Your task to perform on an android device: see sites visited before in the chrome app Image 0: 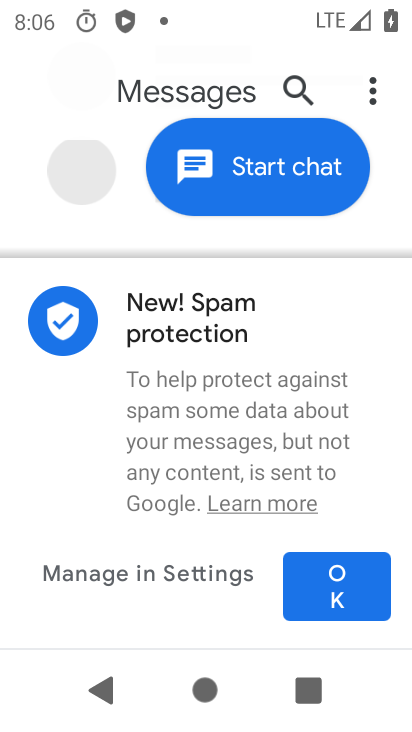
Step 0: press home button
Your task to perform on an android device: see sites visited before in the chrome app Image 1: 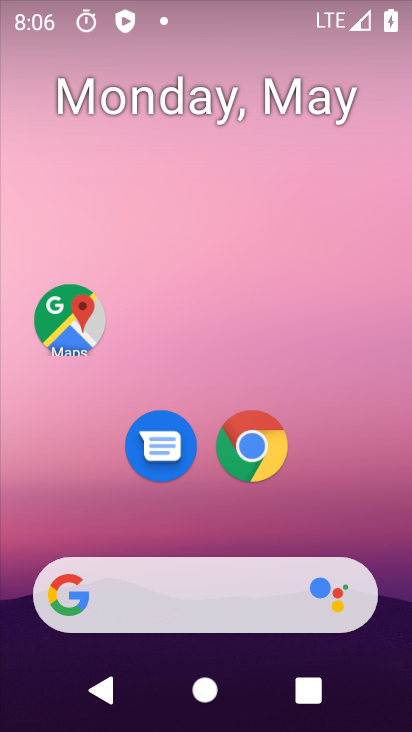
Step 1: click (259, 456)
Your task to perform on an android device: see sites visited before in the chrome app Image 2: 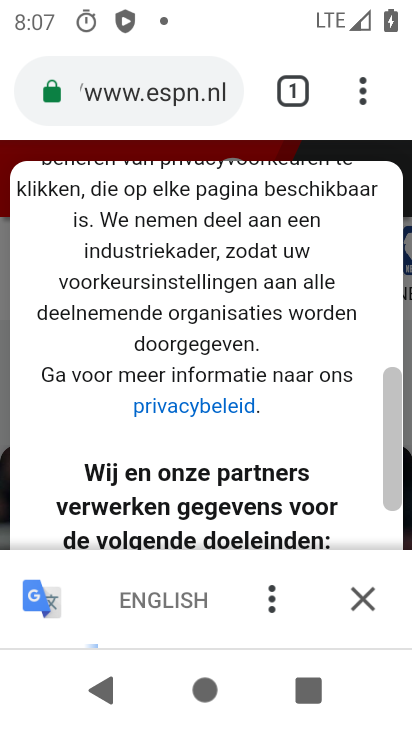
Step 2: click (364, 93)
Your task to perform on an android device: see sites visited before in the chrome app Image 3: 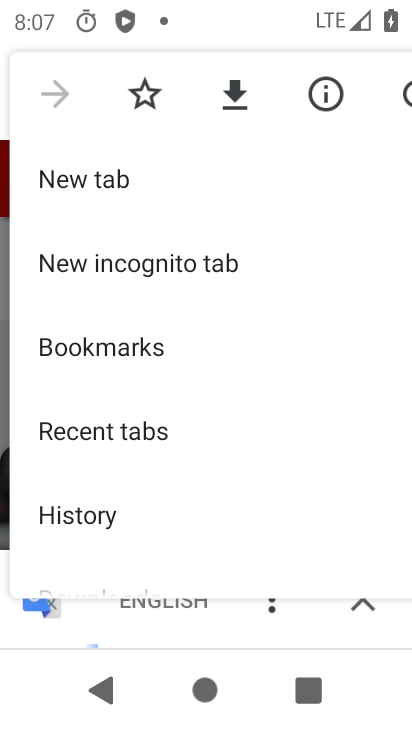
Step 3: click (81, 510)
Your task to perform on an android device: see sites visited before in the chrome app Image 4: 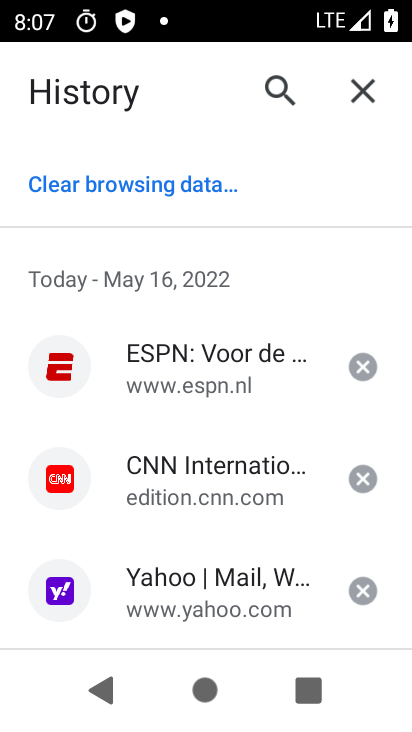
Step 4: task complete